Your task to perform on an android device: Open settings Image 0: 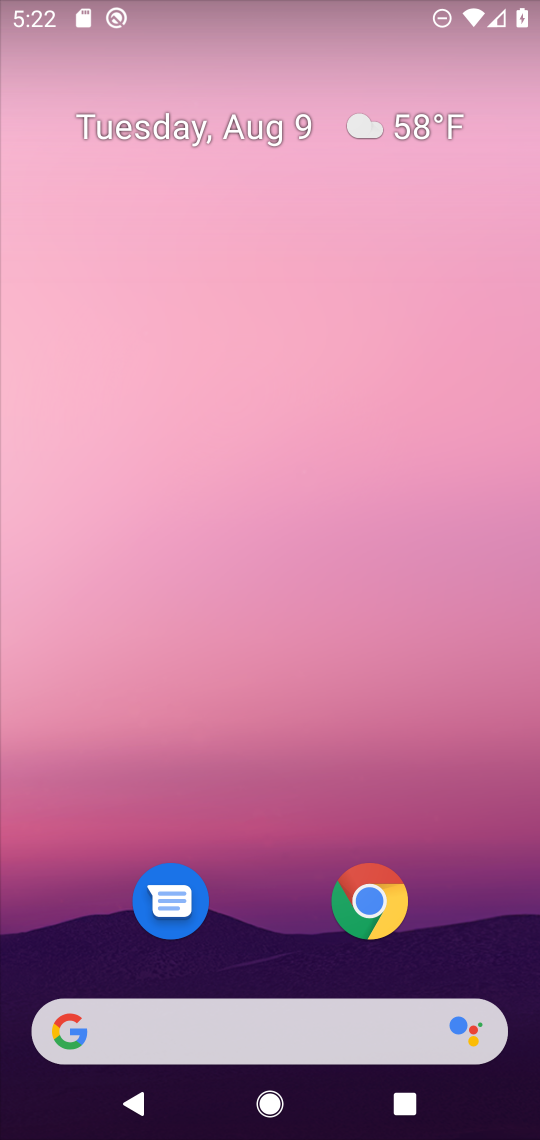
Step 0: drag from (289, 935) to (257, 43)
Your task to perform on an android device: Open settings Image 1: 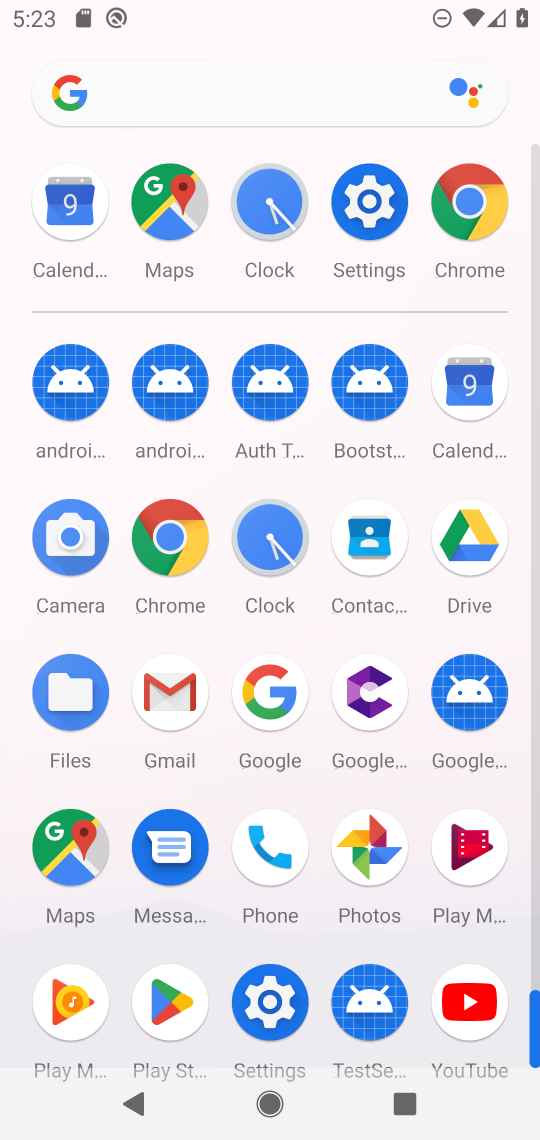
Step 1: click (260, 975)
Your task to perform on an android device: Open settings Image 2: 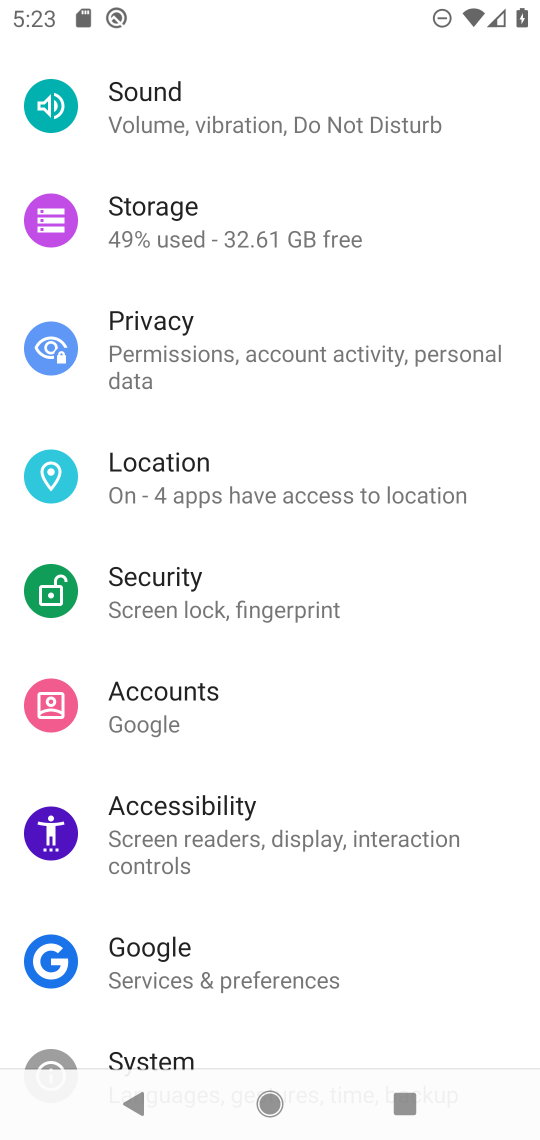
Step 2: task complete